Your task to perform on an android device: turn notification dots off Image 0: 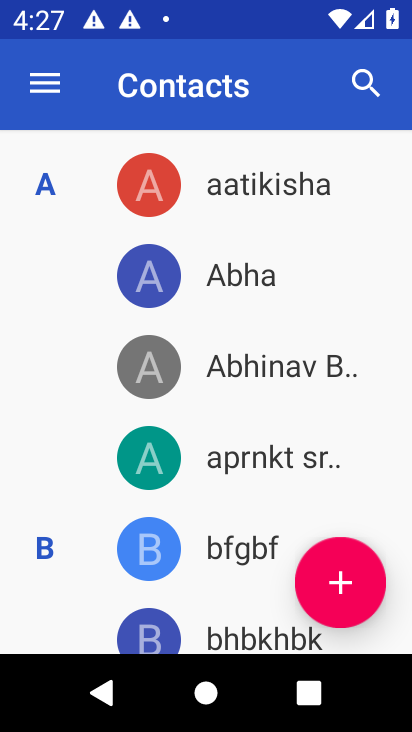
Step 0: press home button
Your task to perform on an android device: turn notification dots off Image 1: 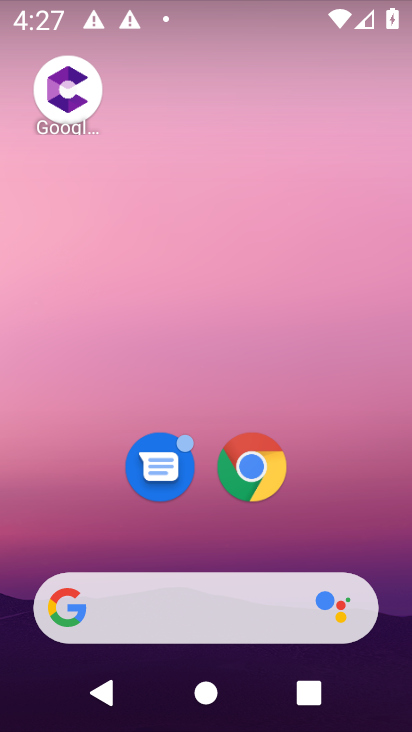
Step 1: drag from (215, 617) to (111, 2)
Your task to perform on an android device: turn notification dots off Image 2: 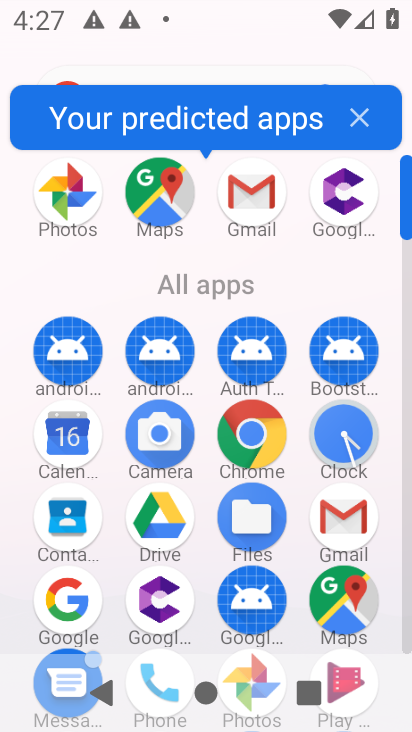
Step 2: drag from (381, 528) to (363, 123)
Your task to perform on an android device: turn notification dots off Image 3: 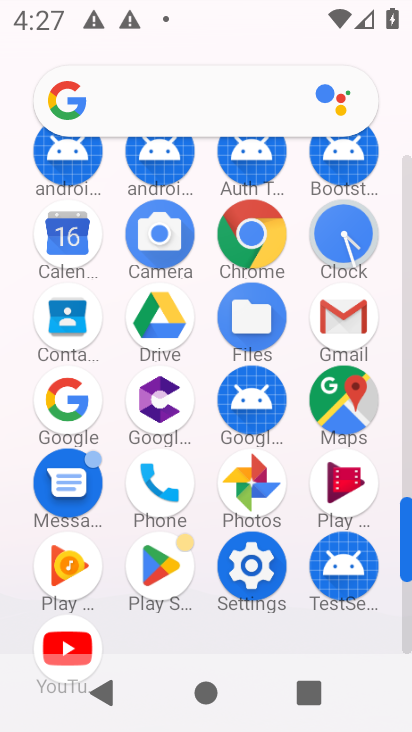
Step 3: click (242, 579)
Your task to perform on an android device: turn notification dots off Image 4: 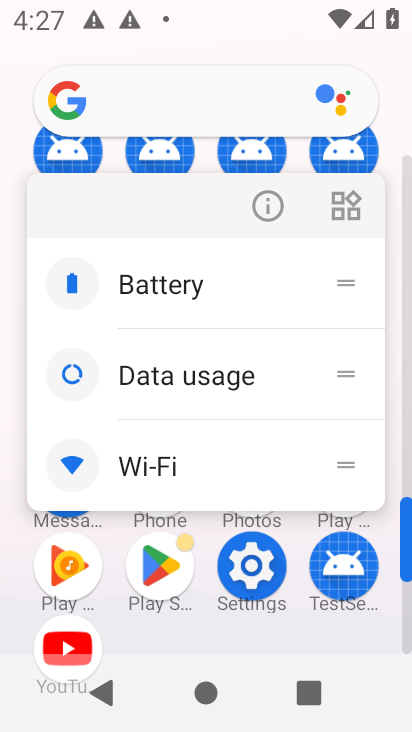
Step 4: click (255, 561)
Your task to perform on an android device: turn notification dots off Image 5: 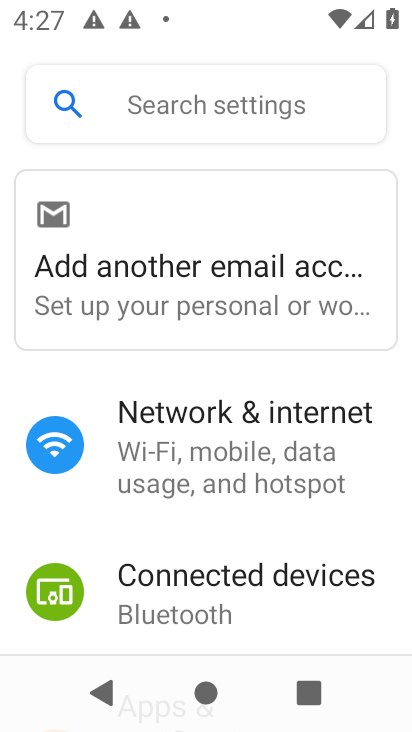
Step 5: drag from (298, 535) to (327, 174)
Your task to perform on an android device: turn notification dots off Image 6: 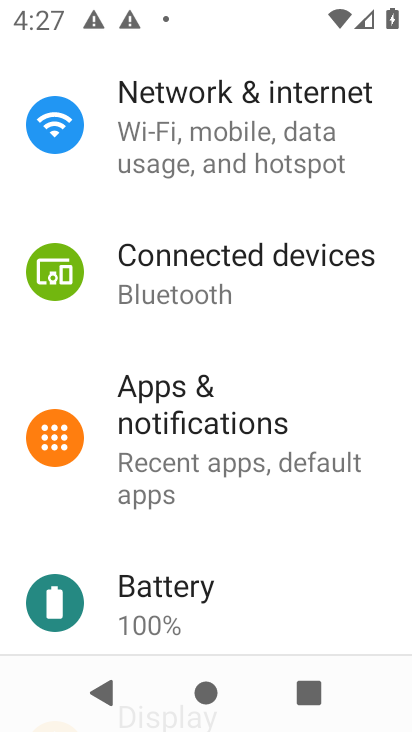
Step 6: click (217, 428)
Your task to perform on an android device: turn notification dots off Image 7: 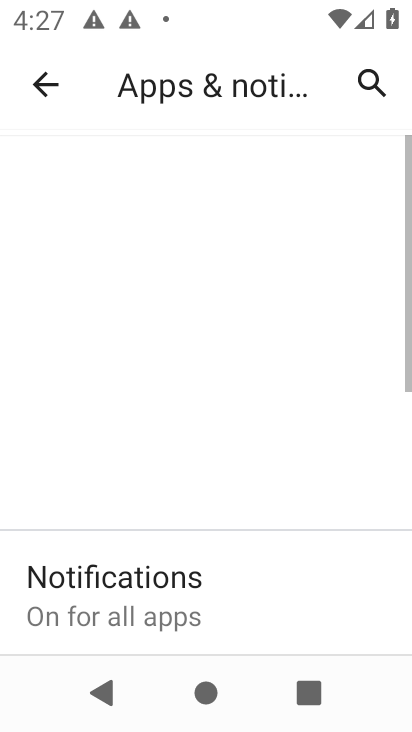
Step 7: click (168, 600)
Your task to perform on an android device: turn notification dots off Image 8: 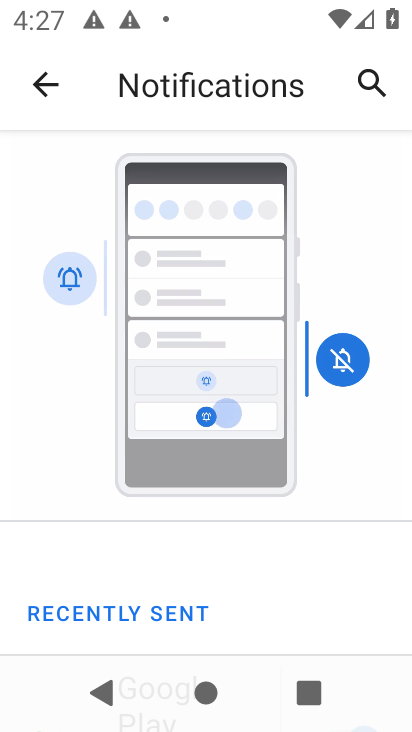
Step 8: drag from (160, 616) to (124, 300)
Your task to perform on an android device: turn notification dots off Image 9: 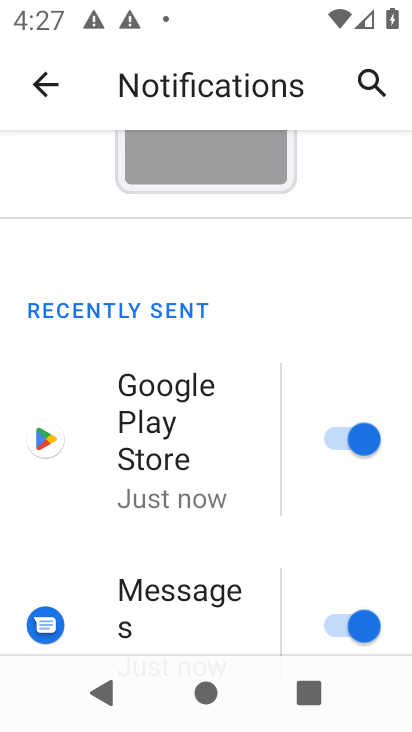
Step 9: drag from (187, 605) to (201, 300)
Your task to perform on an android device: turn notification dots off Image 10: 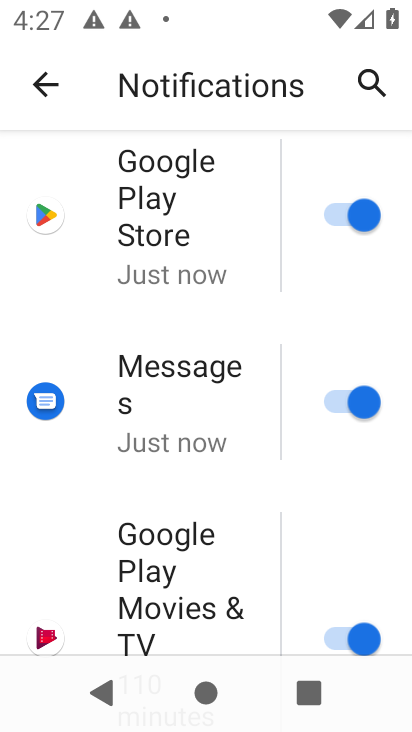
Step 10: drag from (235, 573) to (248, 260)
Your task to perform on an android device: turn notification dots off Image 11: 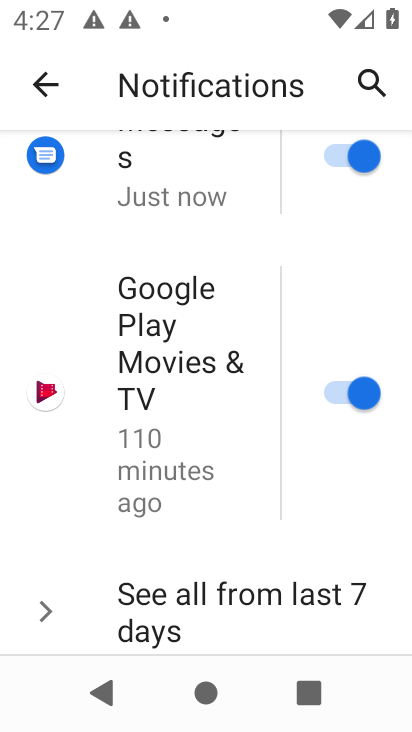
Step 11: drag from (231, 512) to (233, 125)
Your task to perform on an android device: turn notification dots off Image 12: 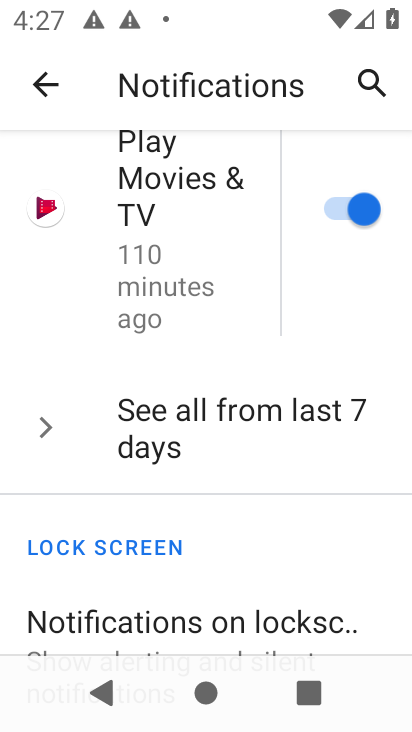
Step 12: drag from (268, 553) to (270, 160)
Your task to perform on an android device: turn notification dots off Image 13: 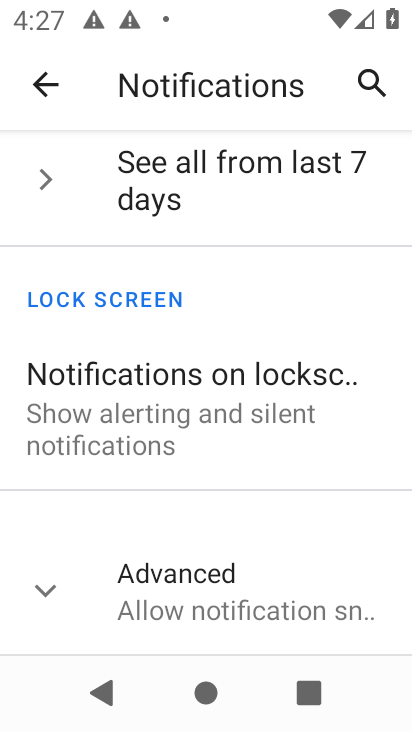
Step 13: click (212, 589)
Your task to perform on an android device: turn notification dots off Image 14: 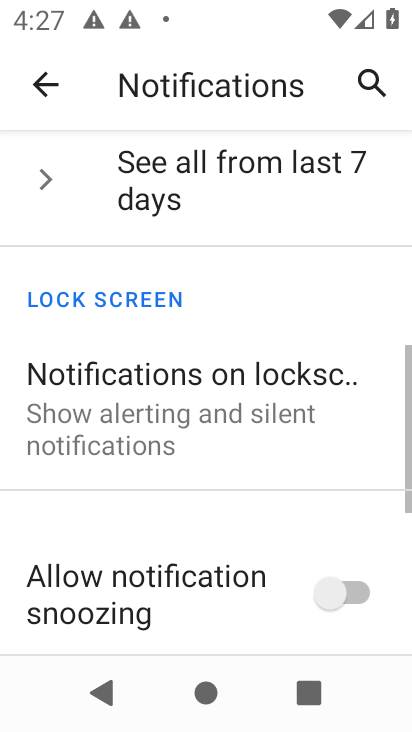
Step 14: drag from (215, 590) to (252, 188)
Your task to perform on an android device: turn notification dots off Image 15: 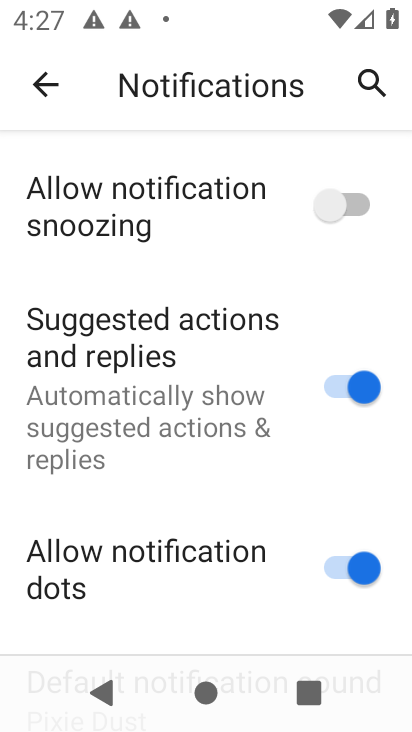
Step 15: drag from (193, 565) to (229, 216)
Your task to perform on an android device: turn notification dots off Image 16: 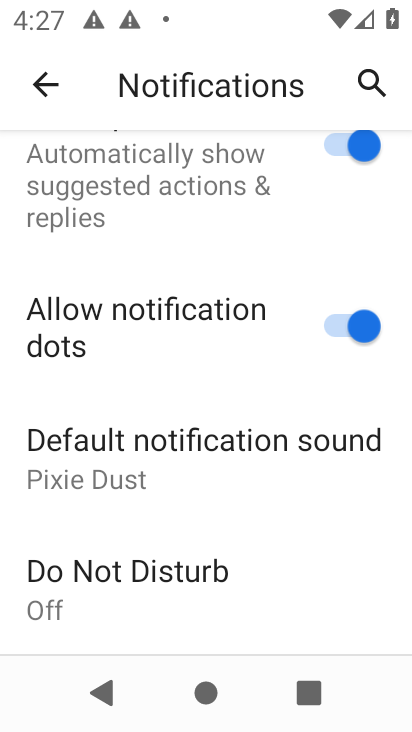
Step 16: click (337, 316)
Your task to perform on an android device: turn notification dots off Image 17: 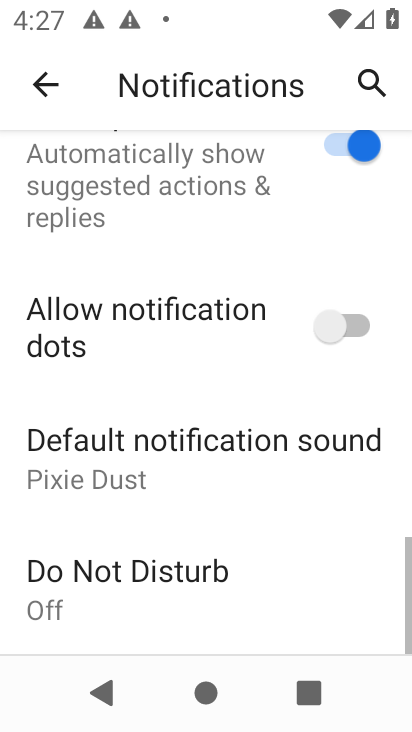
Step 17: task complete